Your task to perform on an android device: Search for Italian restaurants on Maps Image 0: 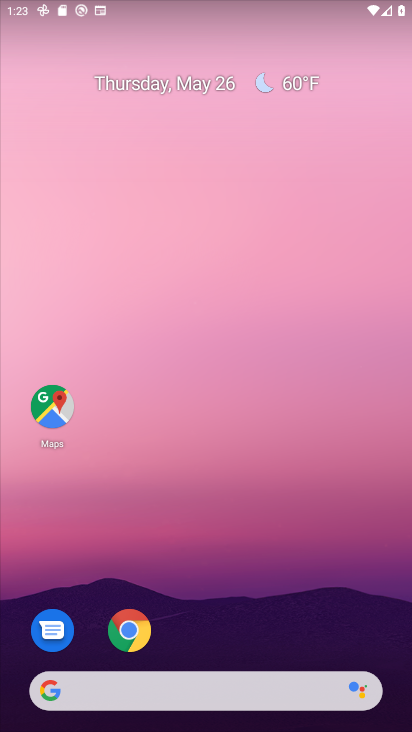
Step 0: drag from (305, 559) to (301, 18)
Your task to perform on an android device: Search for Italian restaurants on Maps Image 1: 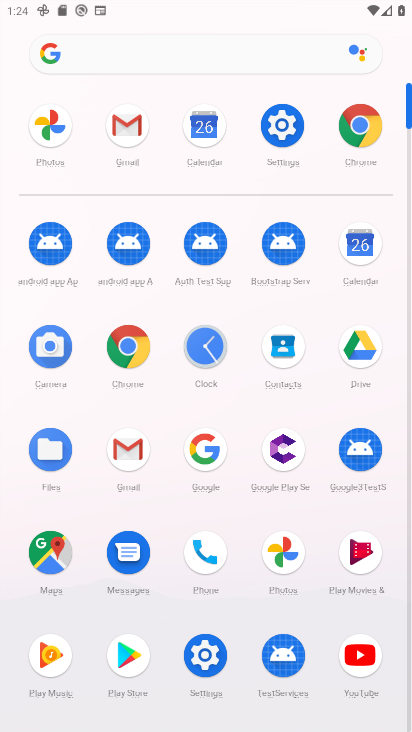
Step 1: click (36, 558)
Your task to perform on an android device: Search for Italian restaurants on Maps Image 2: 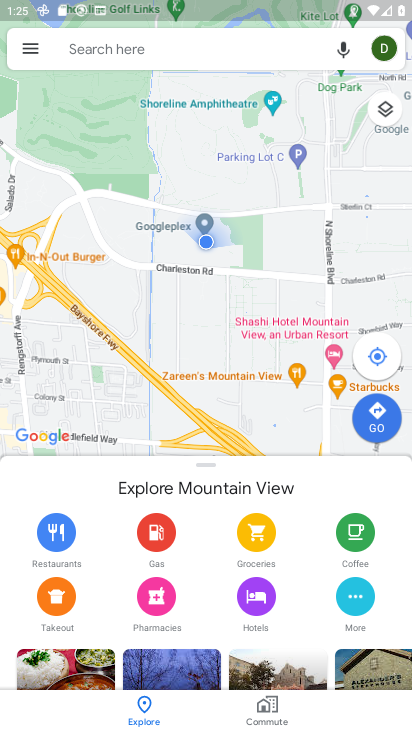
Step 2: click (178, 52)
Your task to perform on an android device: Search for Italian restaurants on Maps Image 3: 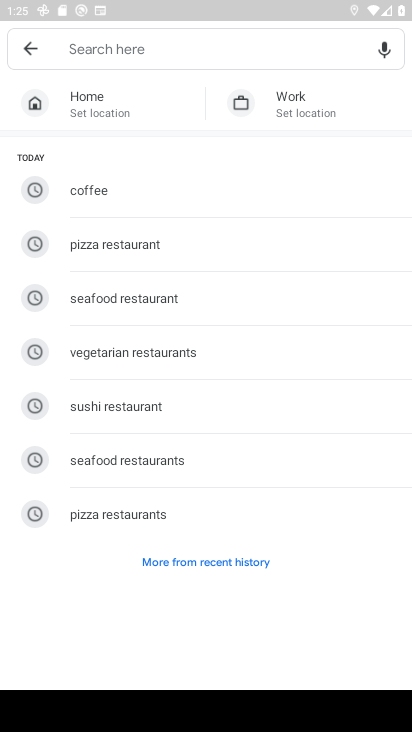
Step 3: type "italian"
Your task to perform on an android device: Search for Italian restaurants on Maps Image 4: 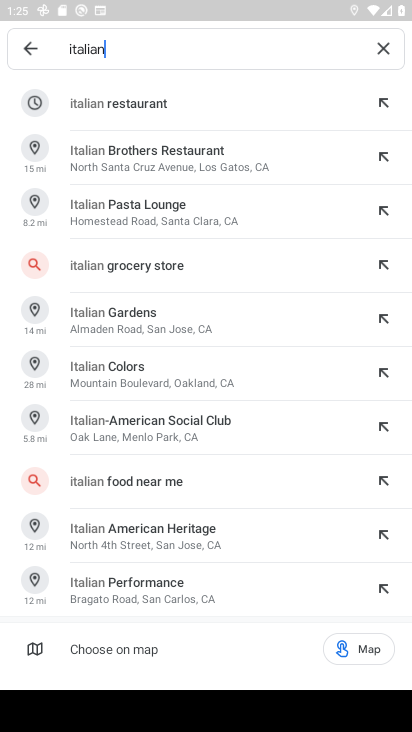
Step 4: click (135, 102)
Your task to perform on an android device: Search for Italian restaurants on Maps Image 5: 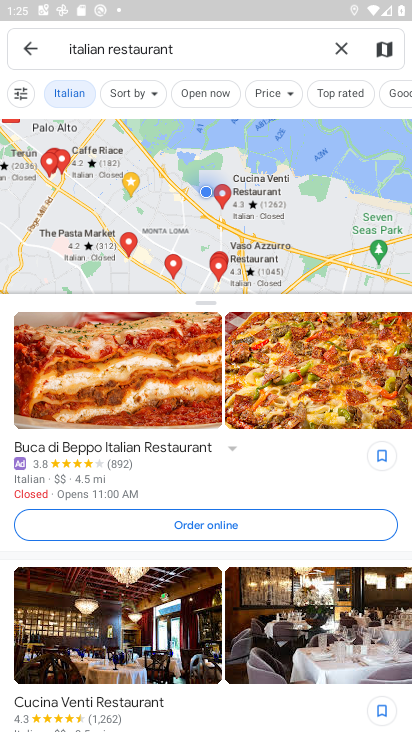
Step 5: task complete